Your task to perform on an android device: toggle notifications settings in the gmail app Image 0: 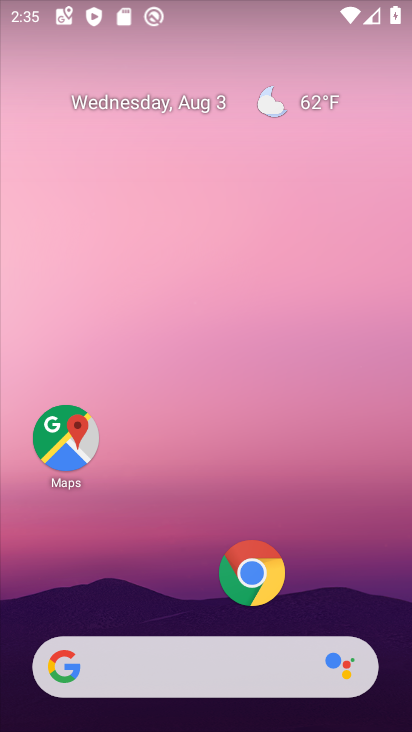
Step 0: drag from (177, 606) to (106, 3)
Your task to perform on an android device: toggle notifications settings in the gmail app Image 1: 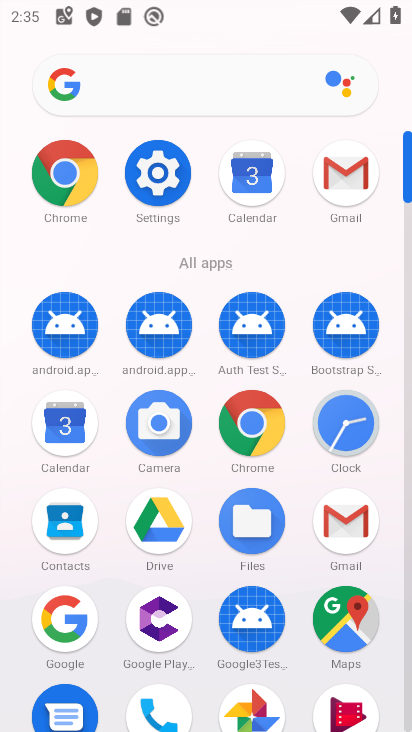
Step 1: click (343, 529)
Your task to perform on an android device: toggle notifications settings in the gmail app Image 2: 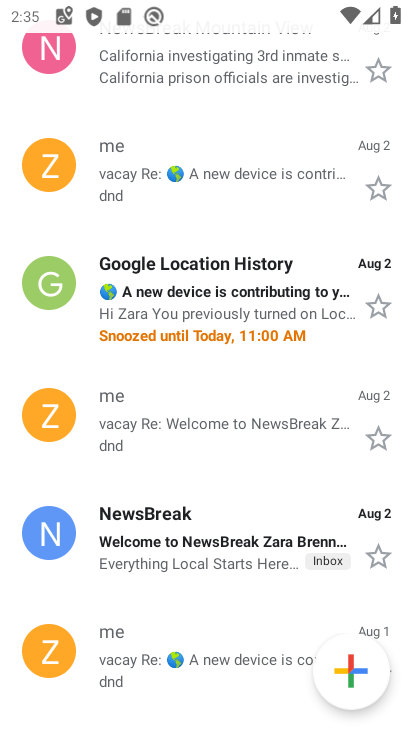
Step 2: drag from (180, 211) to (173, 544)
Your task to perform on an android device: toggle notifications settings in the gmail app Image 3: 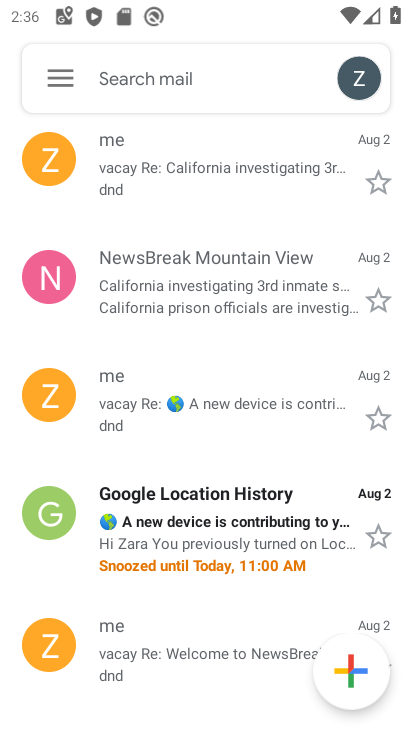
Step 3: click (56, 78)
Your task to perform on an android device: toggle notifications settings in the gmail app Image 4: 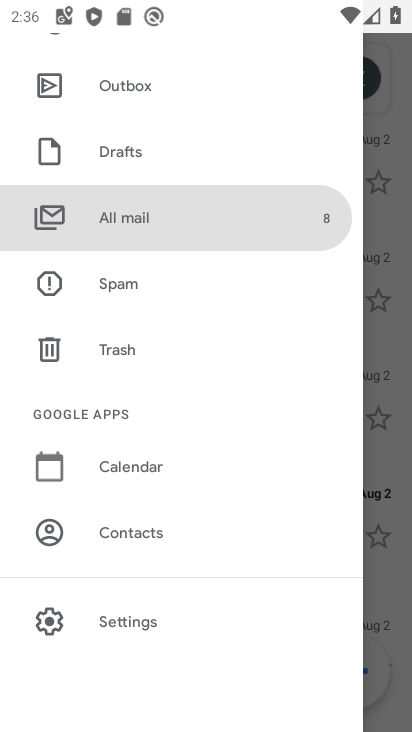
Step 4: click (127, 626)
Your task to perform on an android device: toggle notifications settings in the gmail app Image 5: 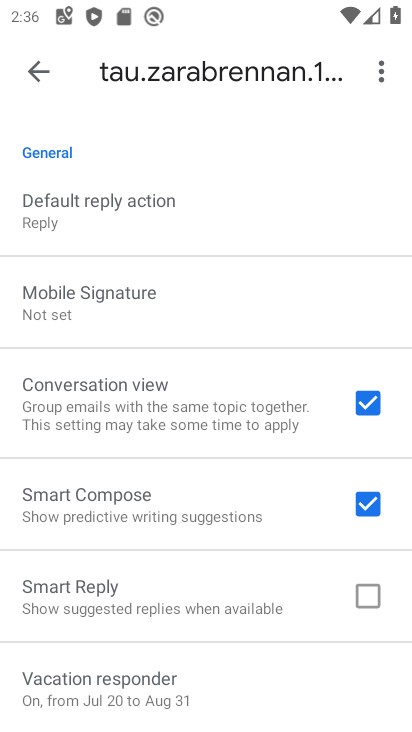
Step 5: click (37, 68)
Your task to perform on an android device: toggle notifications settings in the gmail app Image 6: 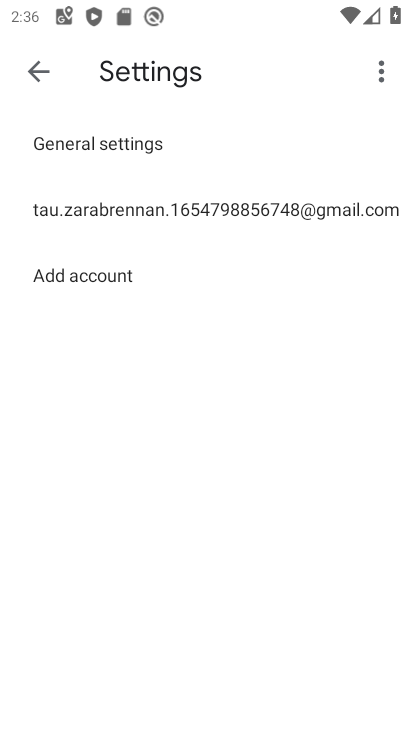
Step 6: click (122, 147)
Your task to perform on an android device: toggle notifications settings in the gmail app Image 7: 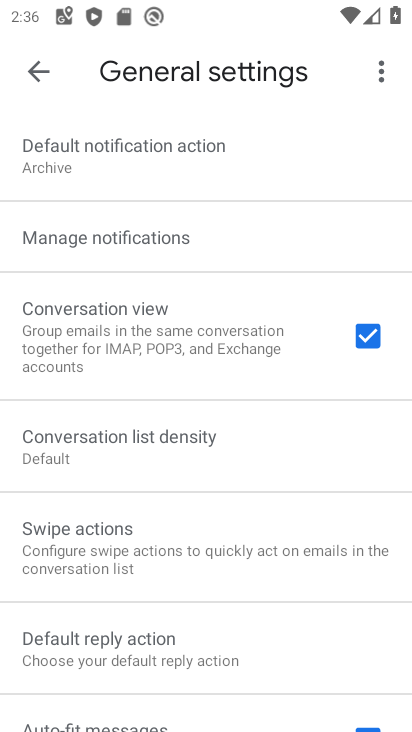
Step 7: click (155, 248)
Your task to perform on an android device: toggle notifications settings in the gmail app Image 8: 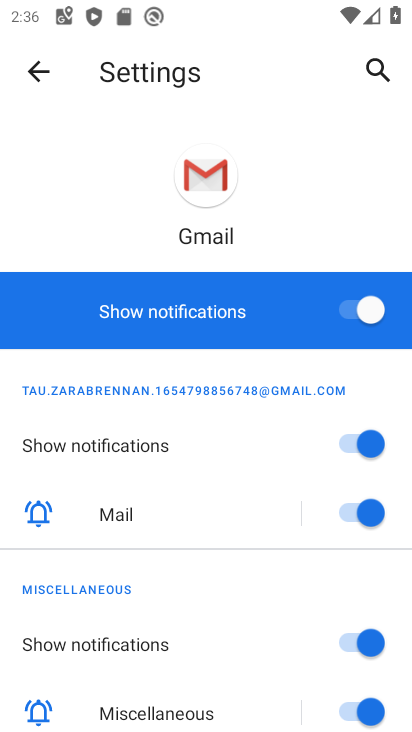
Step 8: click (327, 322)
Your task to perform on an android device: toggle notifications settings in the gmail app Image 9: 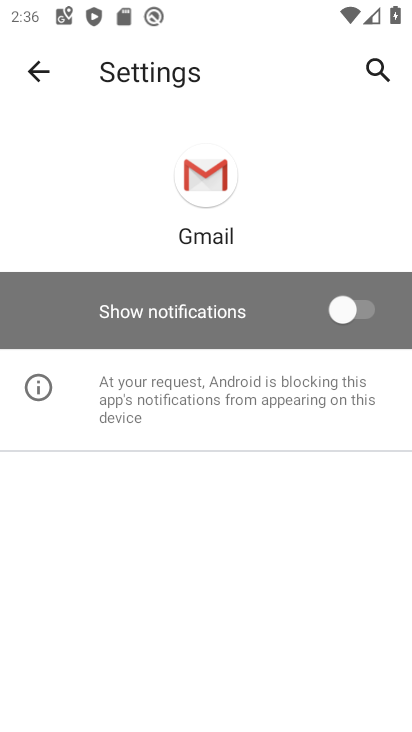
Step 9: task complete